Your task to perform on an android device: choose inbox layout in the gmail app Image 0: 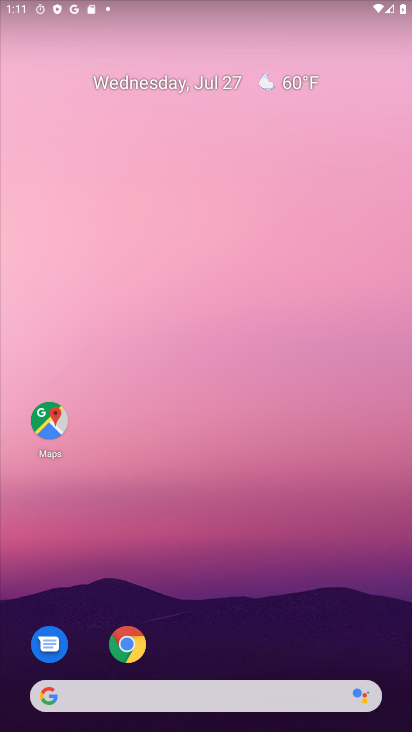
Step 0: drag from (237, 306) to (289, 20)
Your task to perform on an android device: choose inbox layout in the gmail app Image 1: 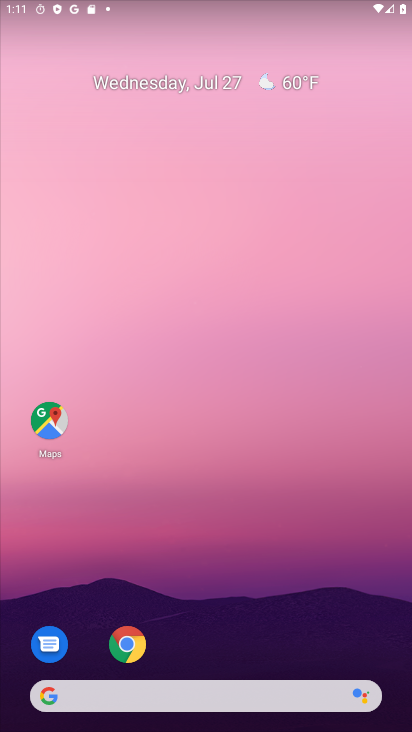
Step 1: drag from (216, 636) to (248, 127)
Your task to perform on an android device: choose inbox layout in the gmail app Image 2: 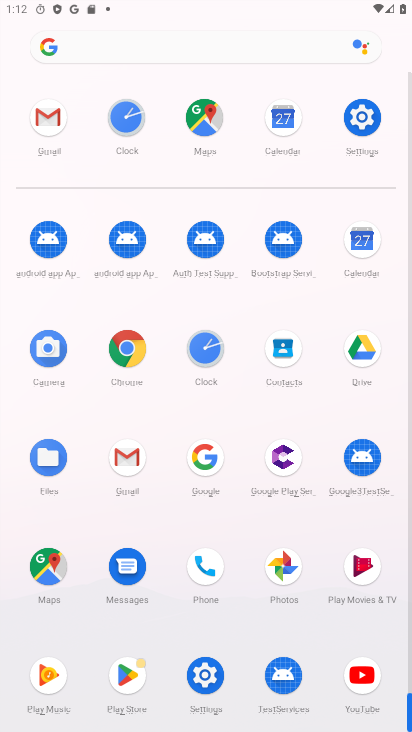
Step 2: click (118, 466)
Your task to perform on an android device: choose inbox layout in the gmail app Image 3: 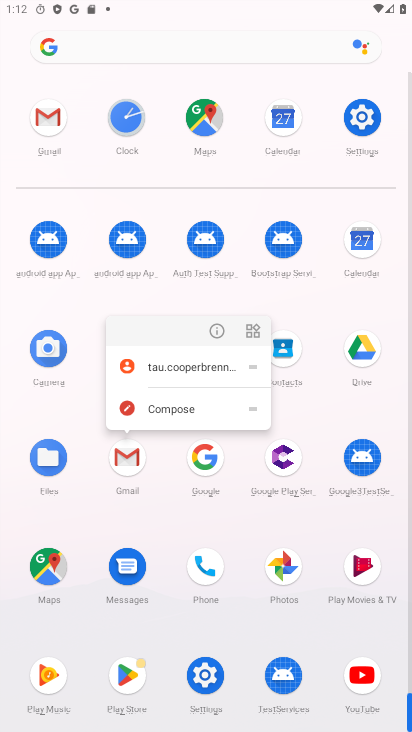
Step 3: click (212, 320)
Your task to perform on an android device: choose inbox layout in the gmail app Image 4: 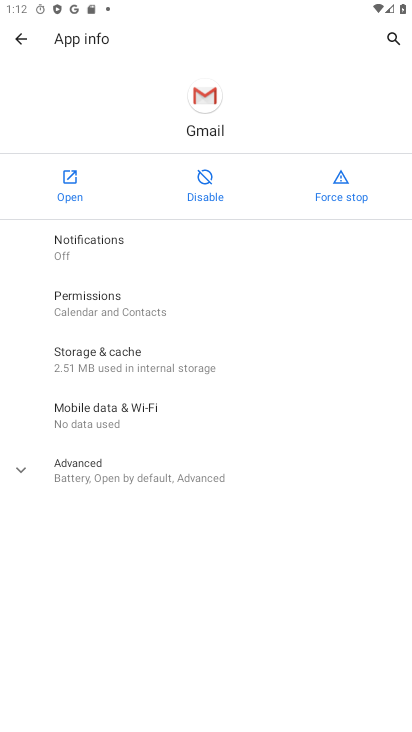
Step 4: click (73, 196)
Your task to perform on an android device: choose inbox layout in the gmail app Image 5: 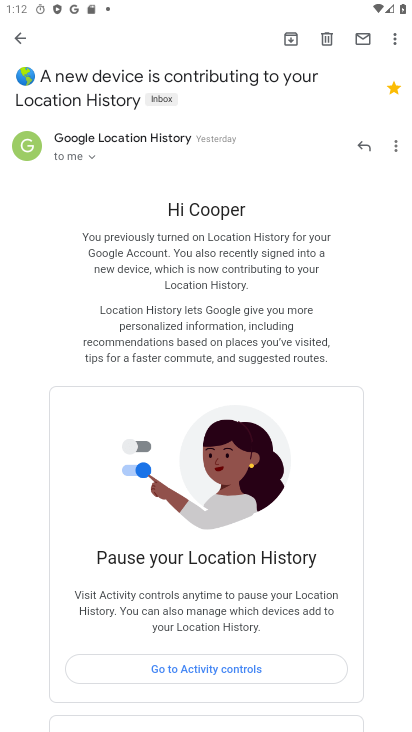
Step 5: click (19, 28)
Your task to perform on an android device: choose inbox layout in the gmail app Image 6: 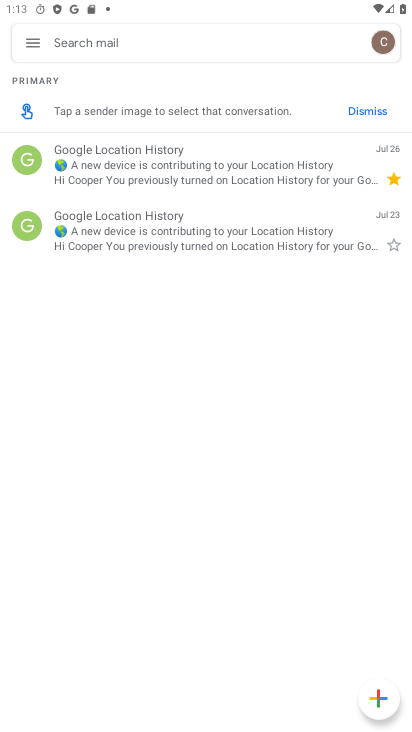
Step 6: click (37, 42)
Your task to perform on an android device: choose inbox layout in the gmail app Image 7: 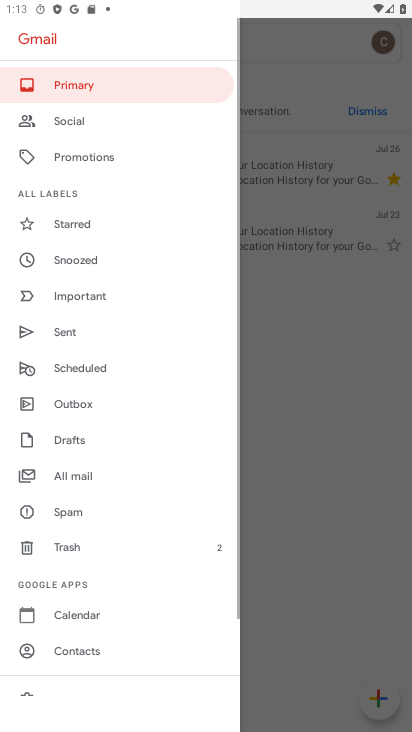
Step 7: click (95, 92)
Your task to perform on an android device: choose inbox layout in the gmail app Image 8: 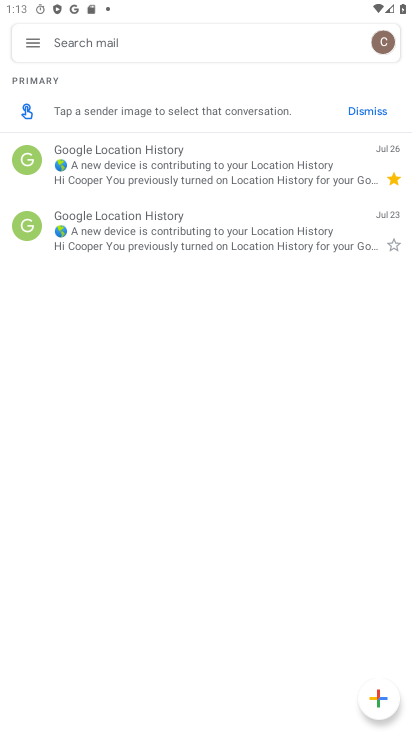
Step 8: task complete